Your task to perform on an android device: Go to accessibility settings Image 0: 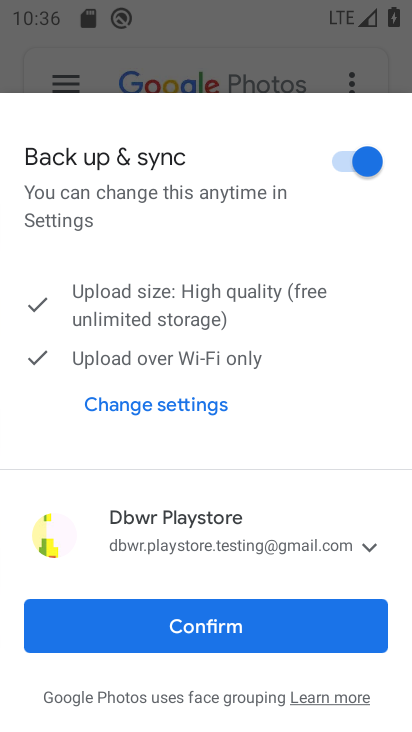
Step 0: press home button
Your task to perform on an android device: Go to accessibility settings Image 1: 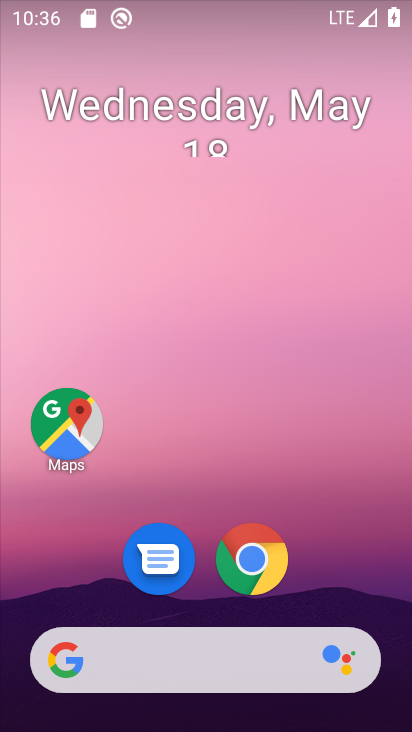
Step 1: drag from (196, 610) to (229, 65)
Your task to perform on an android device: Go to accessibility settings Image 2: 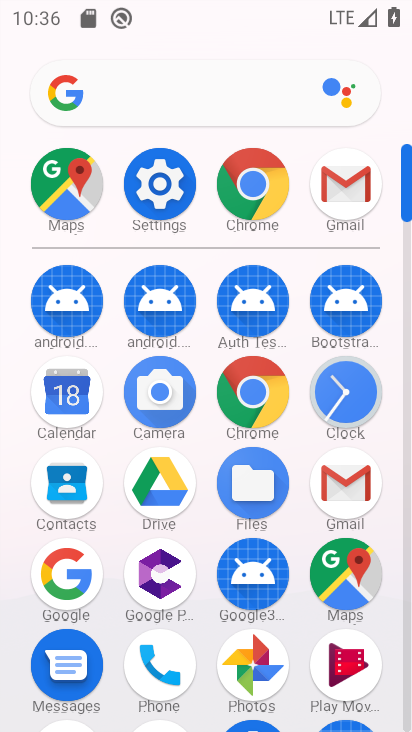
Step 2: click (169, 195)
Your task to perform on an android device: Go to accessibility settings Image 3: 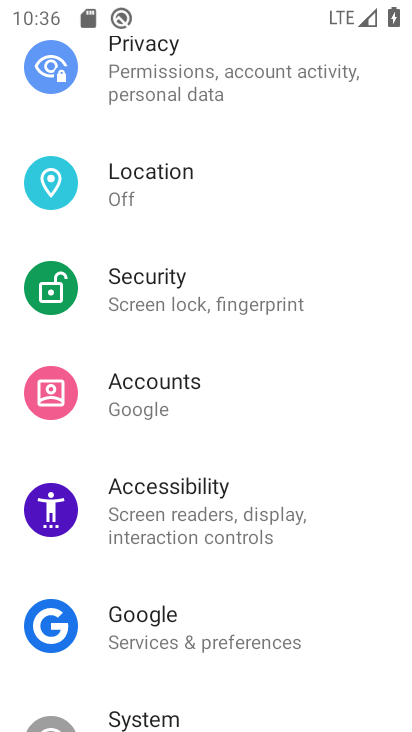
Step 3: click (198, 493)
Your task to perform on an android device: Go to accessibility settings Image 4: 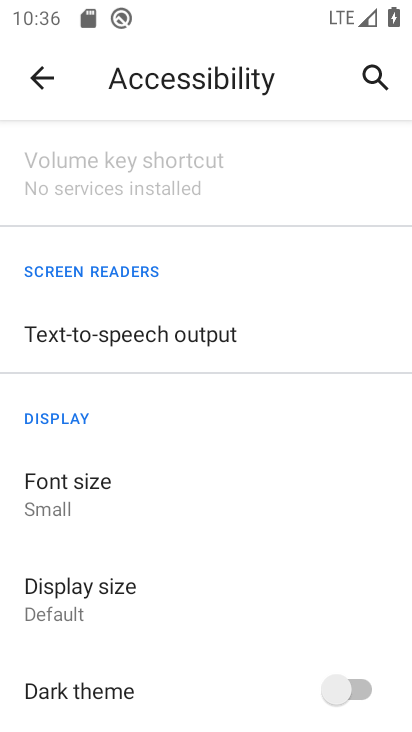
Step 4: task complete